Your task to perform on an android device: turn off smart reply in the gmail app Image 0: 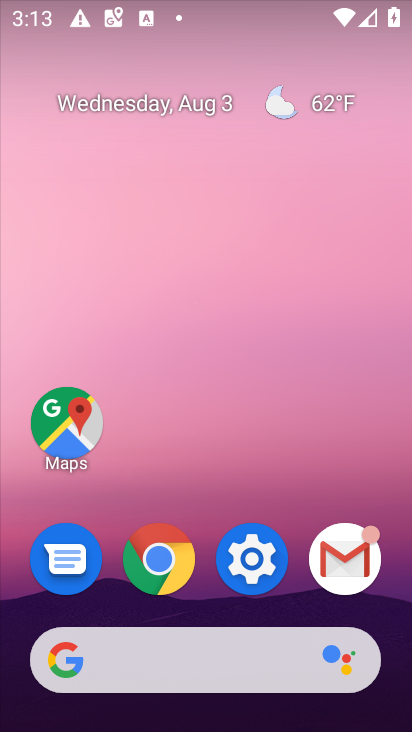
Step 0: press home button
Your task to perform on an android device: turn off smart reply in the gmail app Image 1: 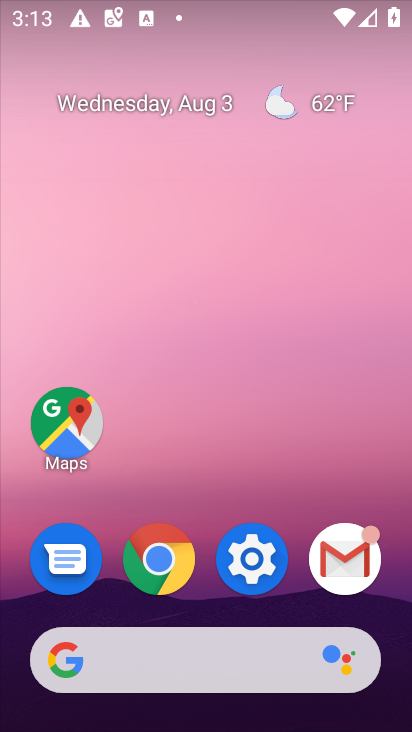
Step 1: click (330, 561)
Your task to perform on an android device: turn off smart reply in the gmail app Image 2: 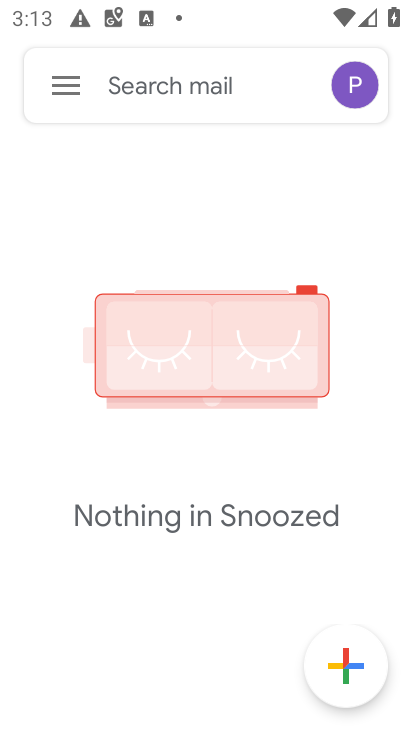
Step 2: click (70, 65)
Your task to perform on an android device: turn off smart reply in the gmail app Image 3: 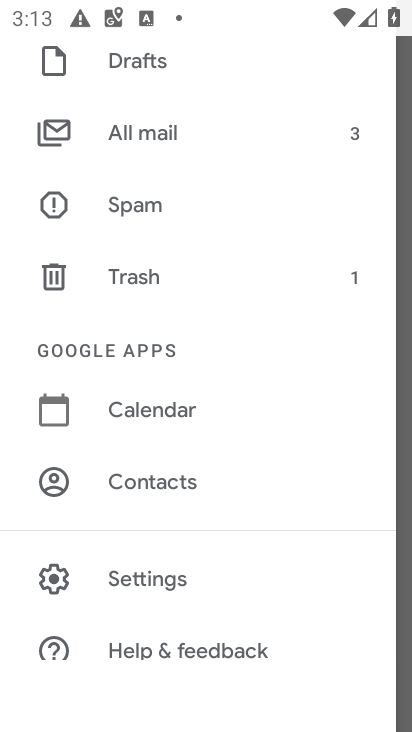
Step 3: click (182, 575)
Your task to perform on an android device: turn off smart reply in the gmail app Image 4: 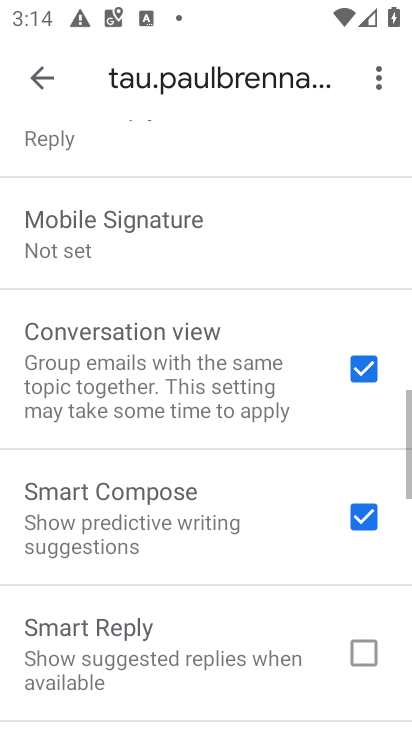
Step 4: drag from (194, 631) to (206, 464)
Your task to perform on an android device: turn off smart reply in the gmail app Image 5: 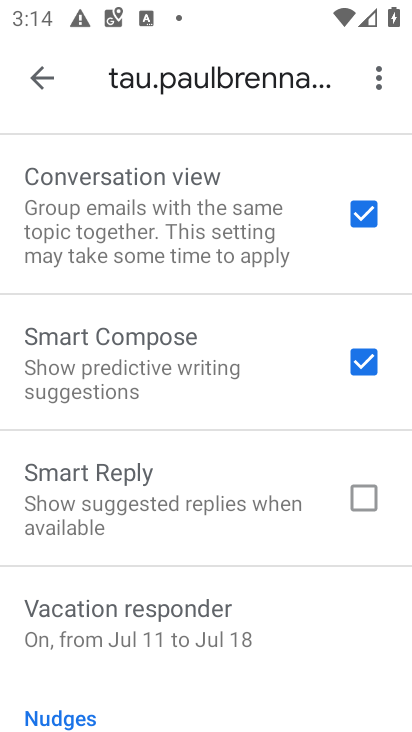
Step 5: click (210, 484)
Your task to perform on an android device: turn off smart reply in the gmail app Image 6: 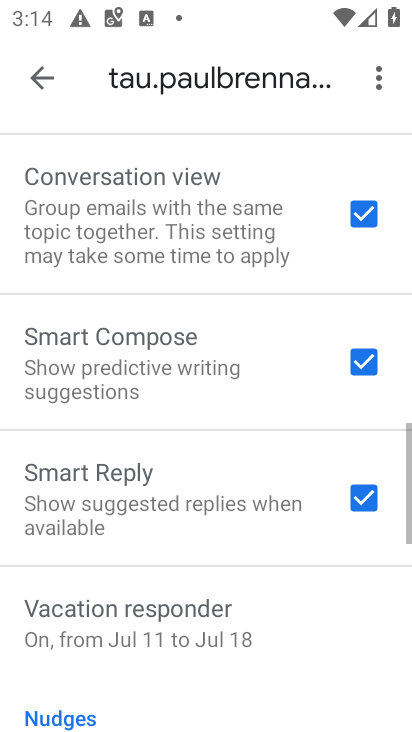
Step 6: click (210, 484)
Your task to perform on an android device: turn off smart reply in the gmail app Image 7: 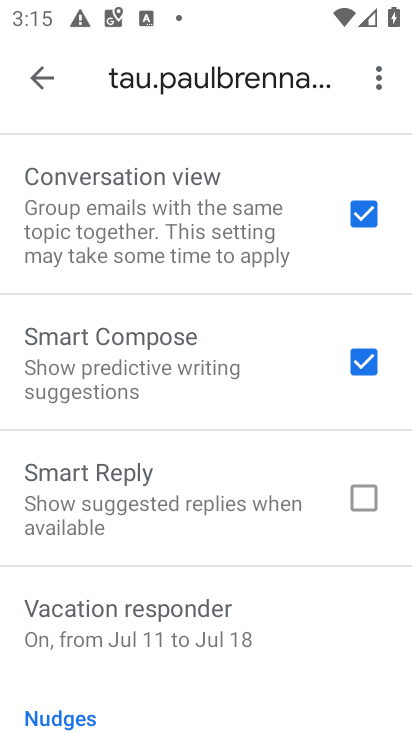
Step 7: task complete